Your task to perform on an android device: set the timer Image 0: 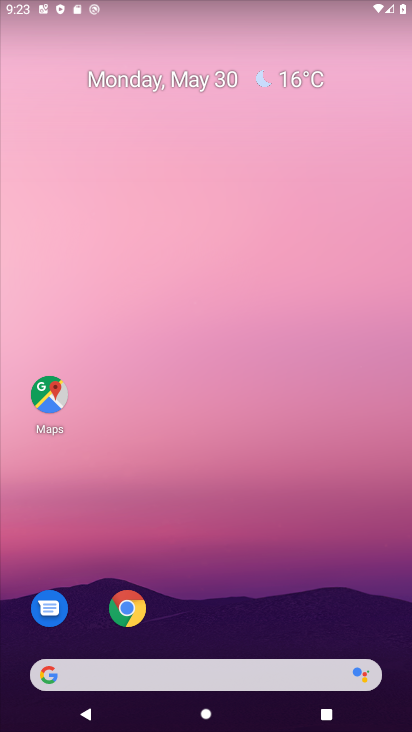
Step 0: drag from (385, 699) to (341, 75)
Your task to perform on an android device: set the timer Image 1: 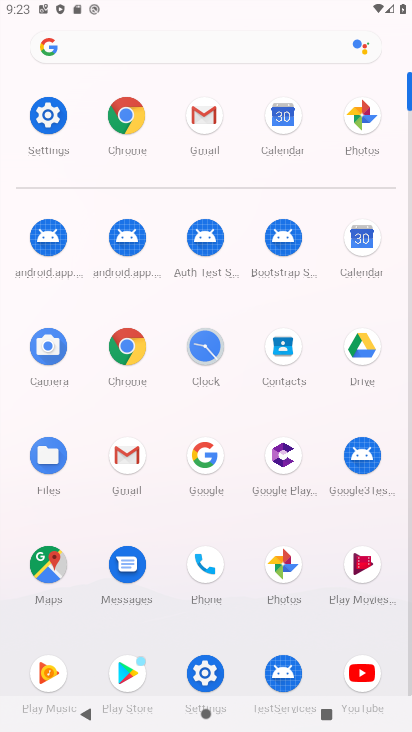
Step 1: click (204, 337)
Your task to perform on an android device: set the timer Image 2: 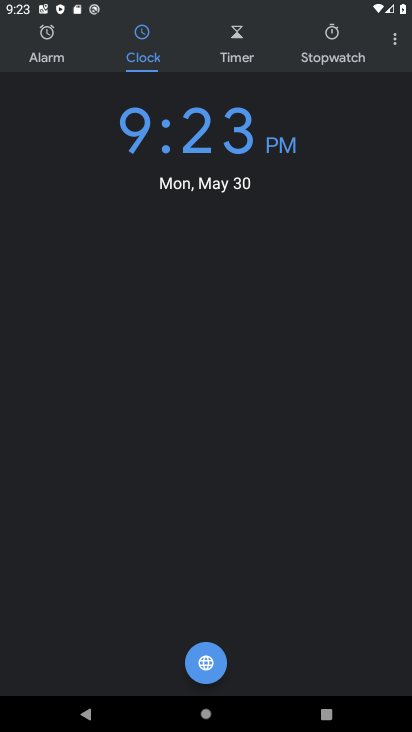
Step 2: click (240, 51)
Your task to perform on an android device: set the timer Image 3: 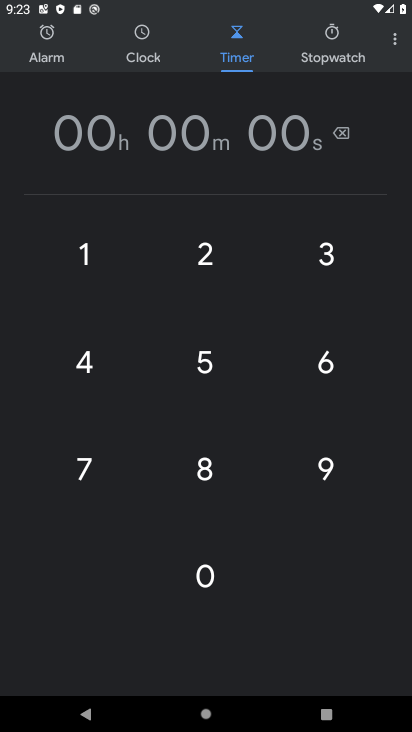
Step 3: click (215, 632)
Your task to perform on an android device: set the timer Image 4: 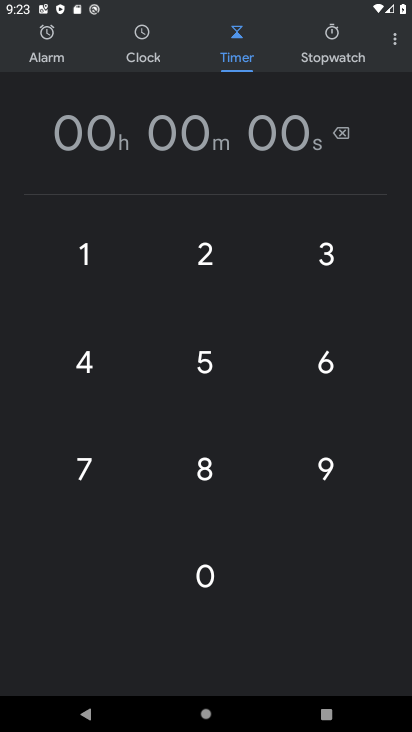
Step 4: click (95, 146)
Your task to perform on an android device: set the timer Image 5: 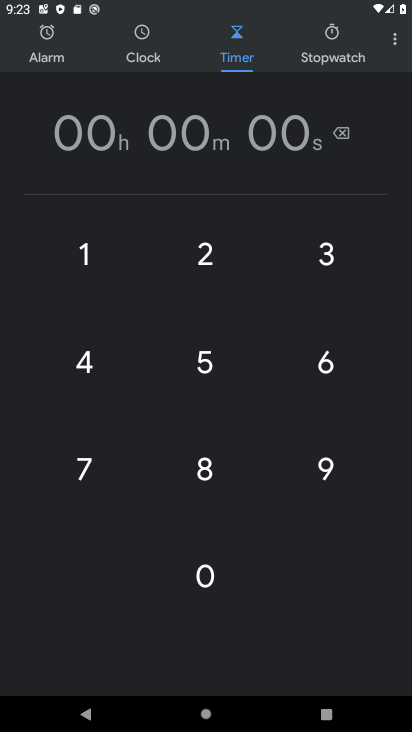
Step 5: click (94, 258)
Your task to perform on an android device: set the timer Image 6: 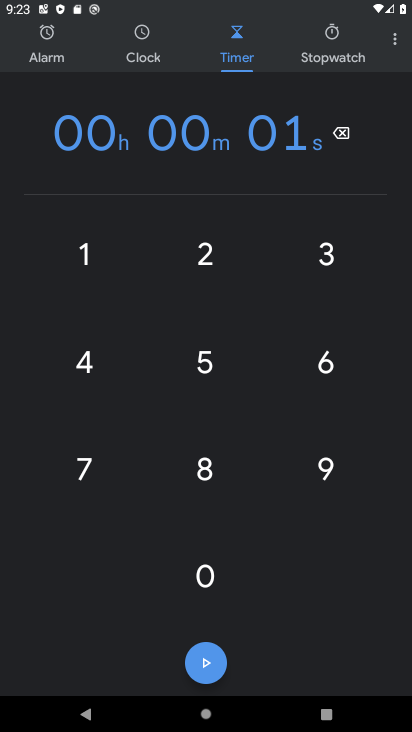
Step 6: click (88, 259)
Your task to perform on an android device: set the timer Image 7: 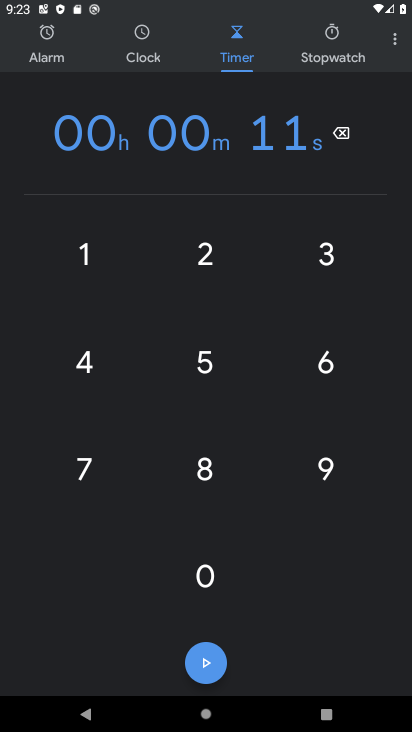
Step 7: click (335, 131)
Your task to perform on an android device: set the timer Image 8: 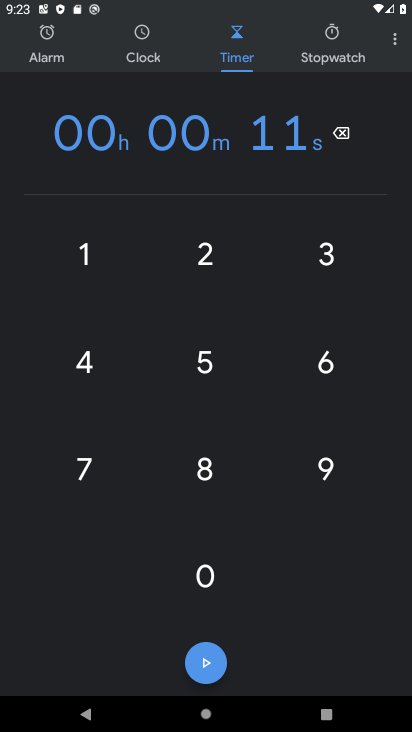
Step 8: click (335, 131)
Your task to perform on an android device: set the timer Image 9: 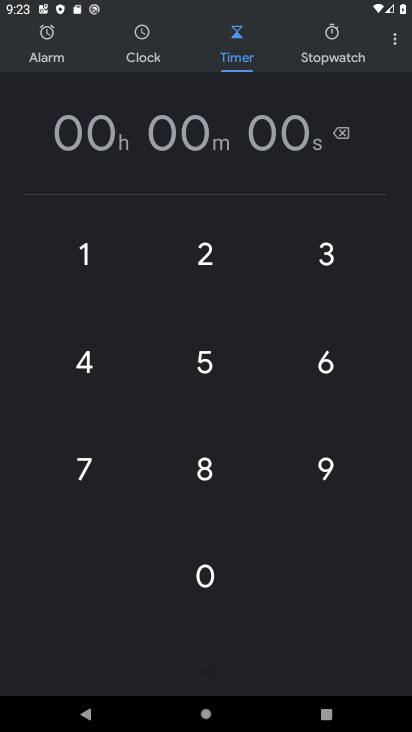
Step 9: click (335, 131)
Your task to perform on an android device: set the timer Image 10: 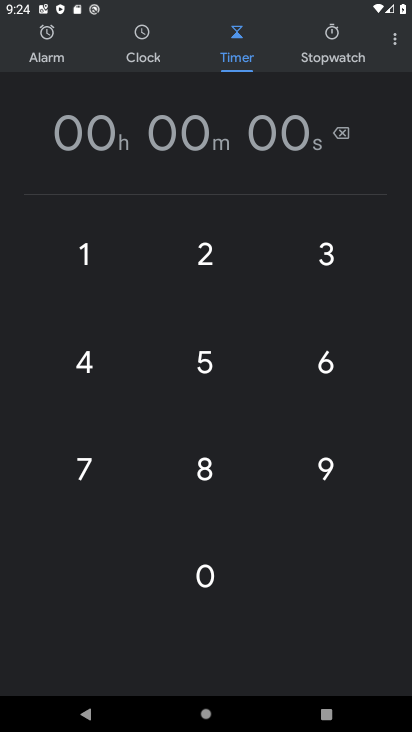
Step 10: click (335, 131)
Your task to perform on an android device: set the timer Image 11: 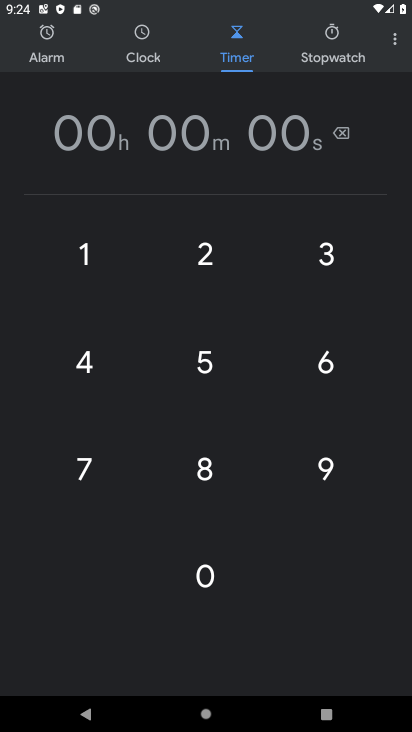
Step 11: click (399, 39)
Your task to perform on an android device: set the timer Image 12: 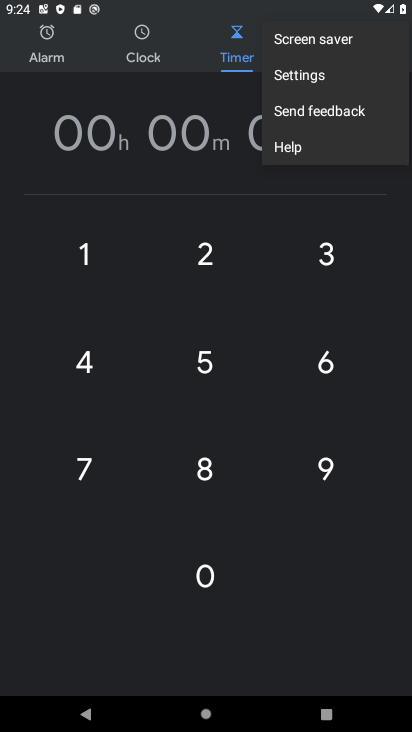
Step 12: click (308, 75)
Your task to perform on an android device: set the timer Image 13: 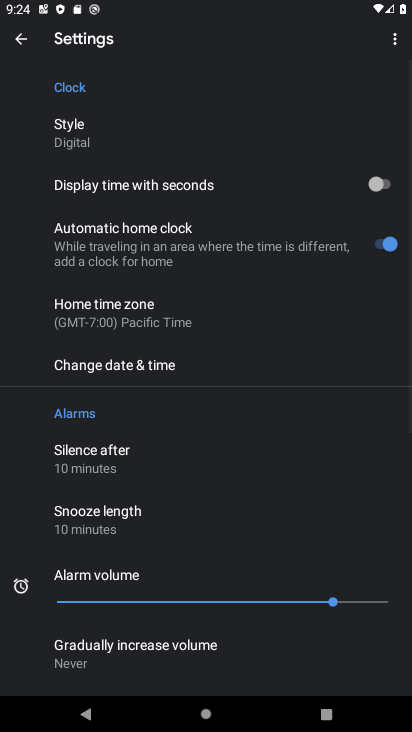
Step 13: drag from (268, 553) to (318, 211)
Your task to perform on an android device: set the timer Image 14: 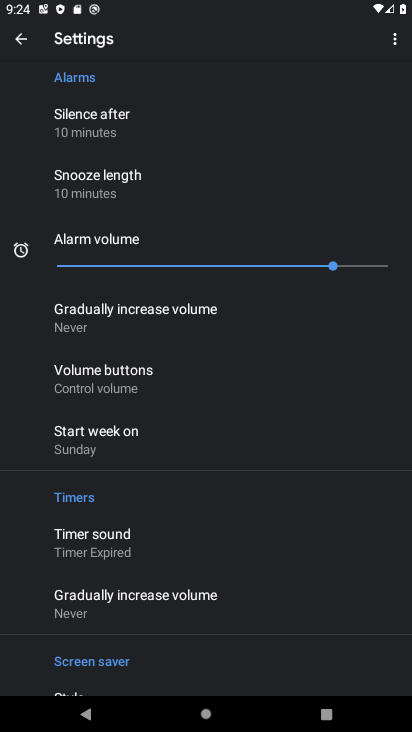
Step 14: drag from (199, 643) to (211, 332)
Your task to perform on an android device: set the timer Image 15: 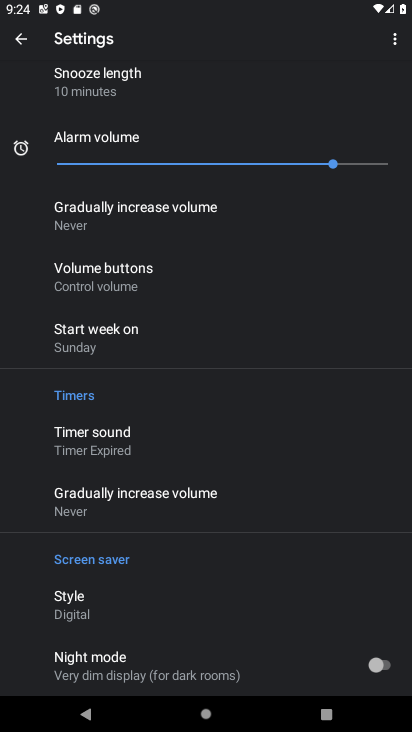
Step 15: drag from (195, 650) to (240, 321)
Your task to perform on an android device: set the timer Image 16: 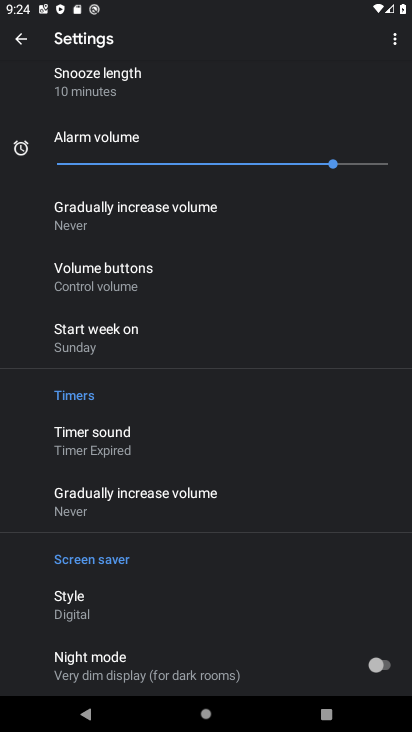
Step 16: drag from (229, 580) to (251, 390)
Your task to perform on an android device: set the timer Image 17: 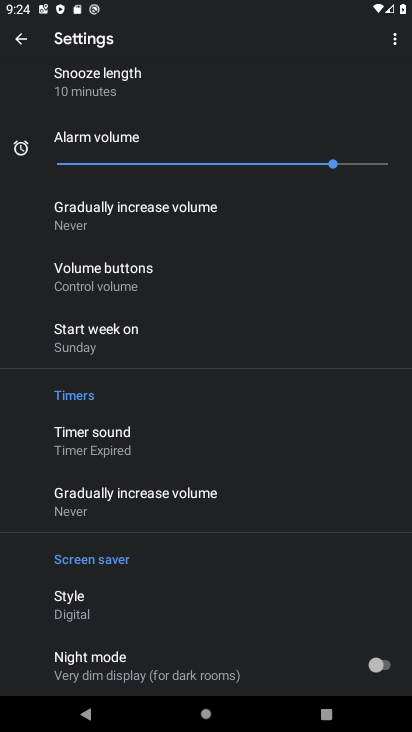
Step 17: click (26, 45)
Your task to perform on an android device: set the timer Image 18: 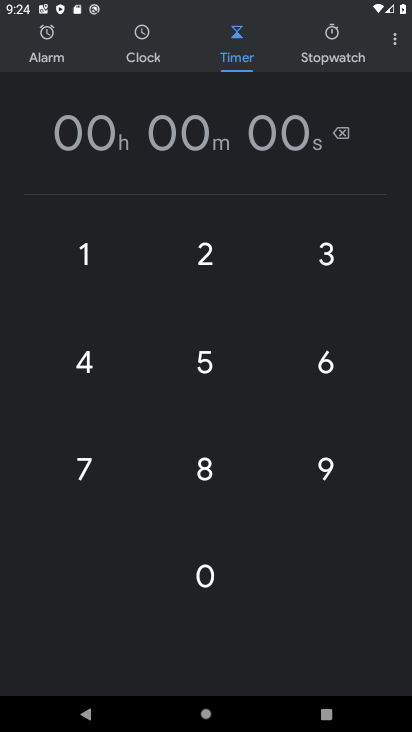
Step 18: task complete